Your task to perform on an android device: Open the calendar and show me this week's events Image 0: 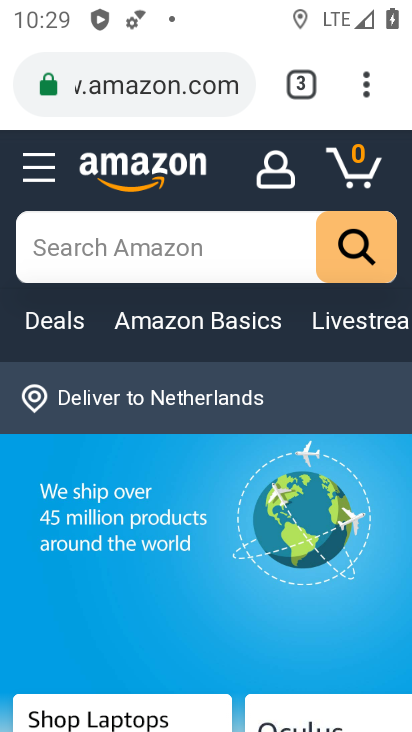
Step 0: press home button
Your task to perform on an android device: Open the calendar and show me this week's events Image 1: 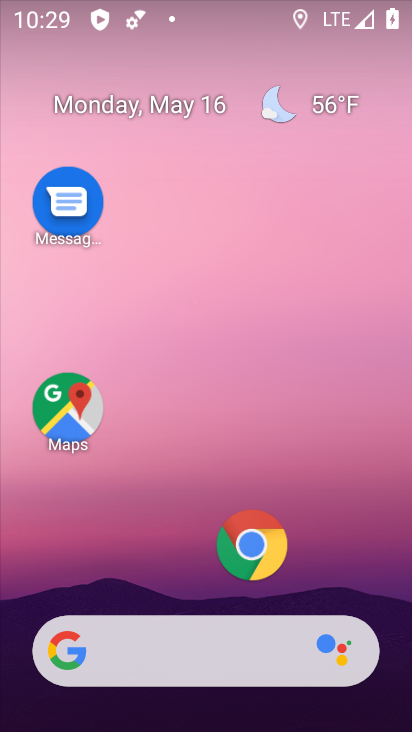
Step 1: drag from (185, 607) to (88, 114)
Your task to perform on an android device: Open the calendar and show me this week's events Image 2: 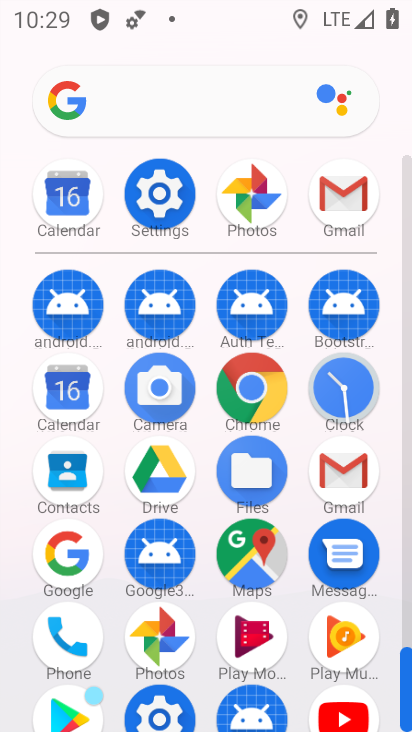
Step 2: click (63, 370)
Your task to perform on an android device: Open the calendar and show me this week's events Image 3: 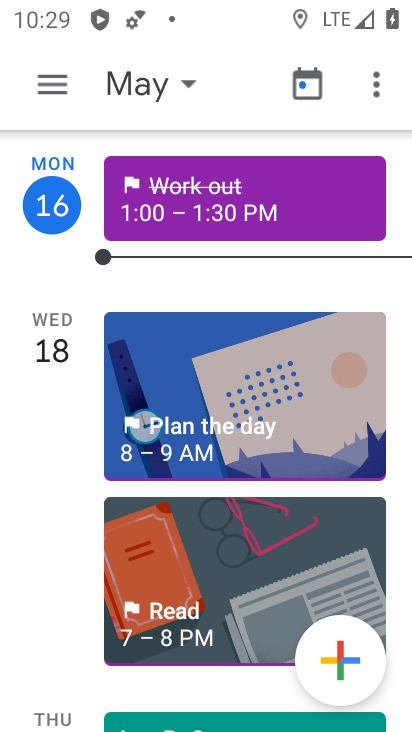
Step 3: click (49, 75)
Your task to perform on an android device: Open the calendar and show me this week's events Image 4: 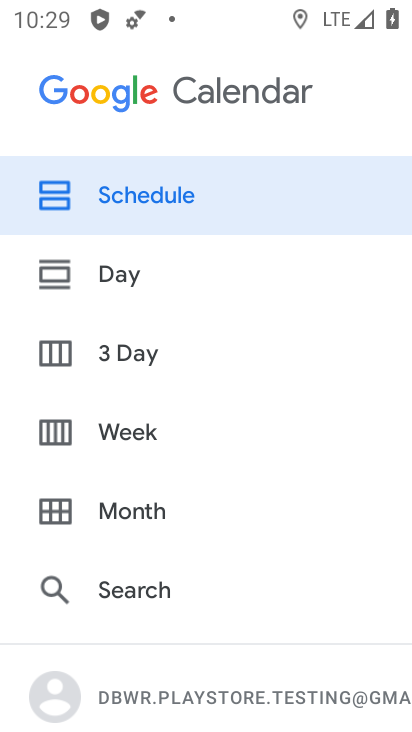
Step 4: click (154, 431)
Your task to perform on an android device: Open the calendar and show me this week's events Image 5: 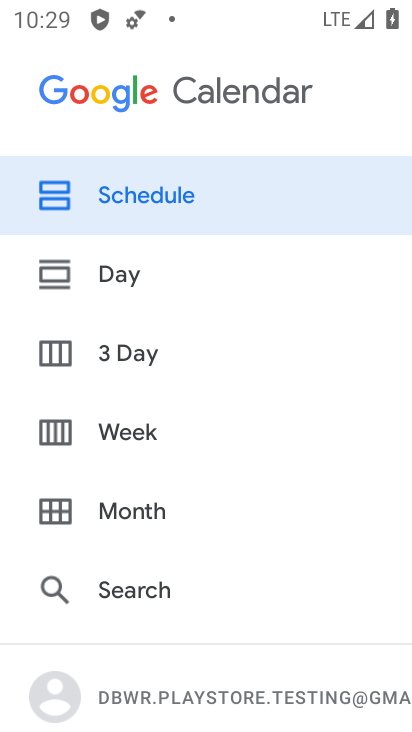
Step 5: click (184, 447)
Your task to perform on an android device: Open the calendar and show me this week's events Image 6: 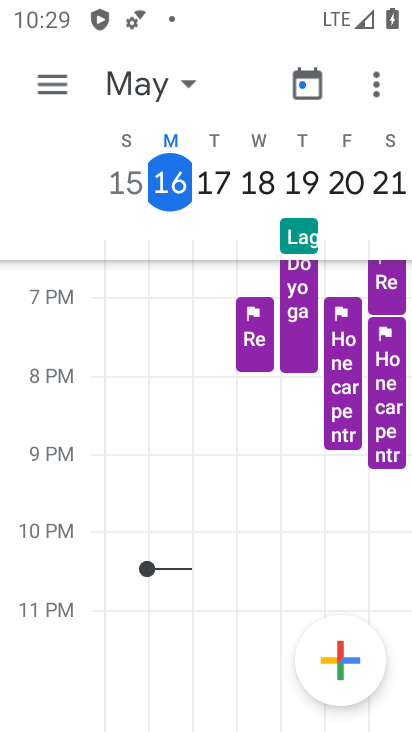
Step 6: task complete